Your task to perform on an android device: find which apps use the phone's location Image 0: 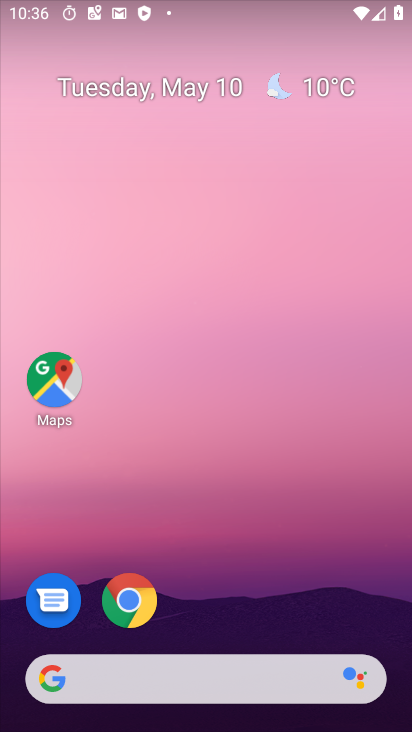
Step 0: drag from (314, 543) to (266, 21)
Your task to perform on an android device: find which apps use the phone's location Image 1: 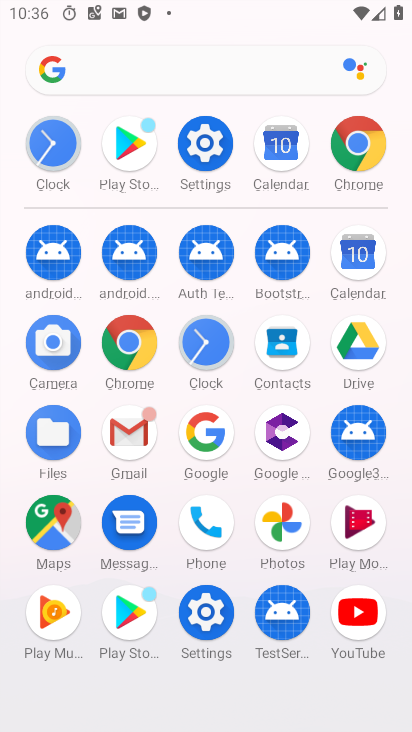
Step 1: drag from (14, 594) to (15, 166)
Your task to perform on an android device: find which apps use the phone's location Image 2: 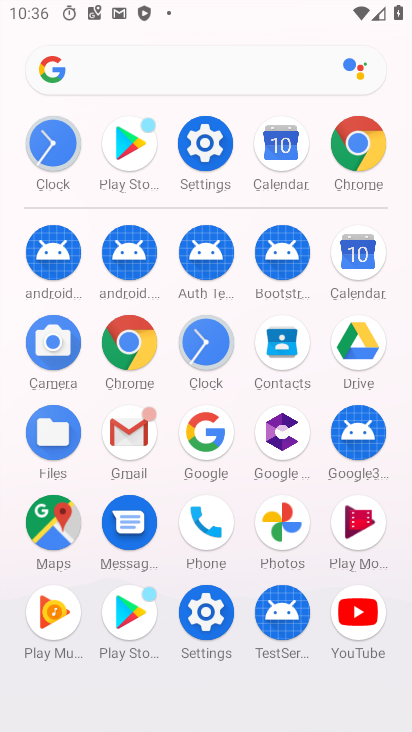
Step 2: click (202, 614)
Your task to perform on an android device: find which apps use the phone's location Image 3: 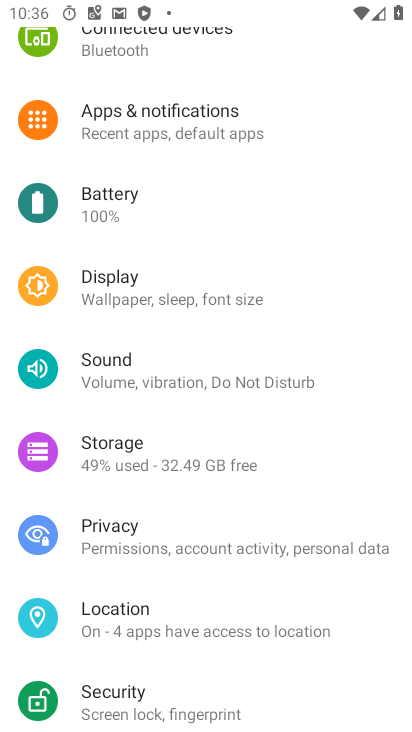
Step 3: drag from (333, 109) to (333, 528)
Your task to perform on an android device: find which apps use the phone's location Image 4: 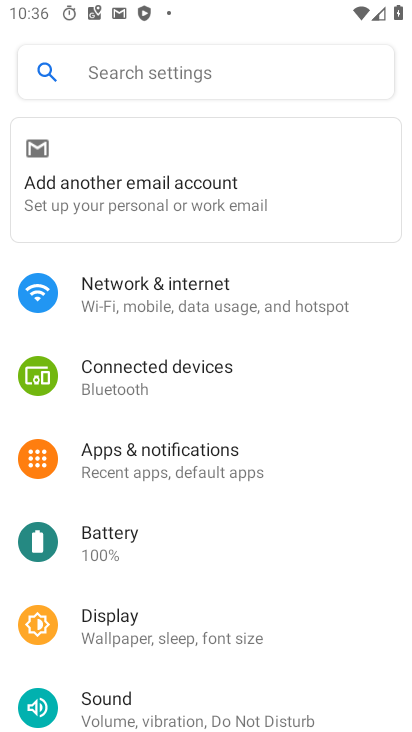
Step 4: drag from (299, 612) to (282, 149)
Your task to perform on an android device: find which apps use the phone's location Image 5: 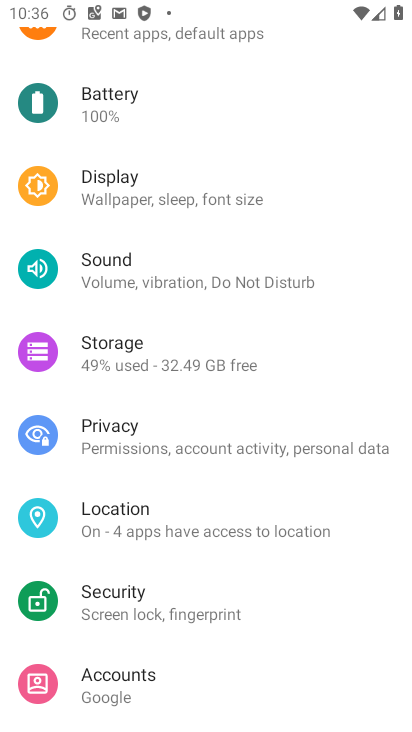
Step 5: drag from (305, 473) to (296, 124)
Your task to perform on an android device: find which apps use the phone's location Image 6: 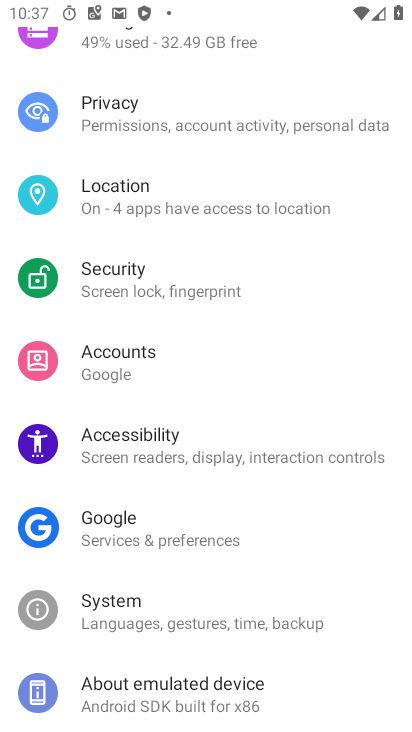
Step 6: click (208, 188)
Your task to perform on an android device: find which apps use the phone's location Image 7: 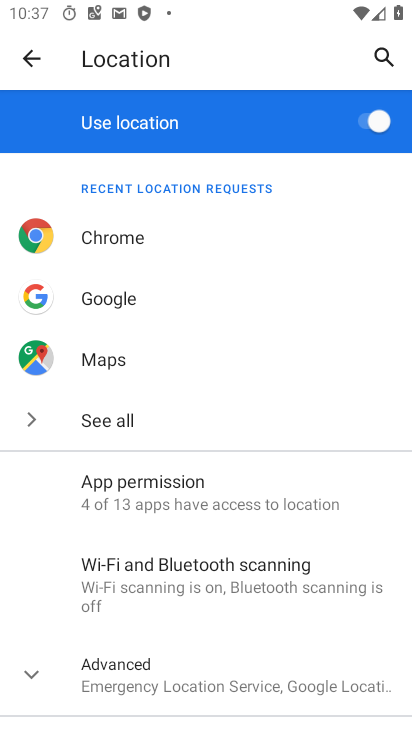
Step 7: drag from (247, 509) to (275, 235)
Your task to perform on an android device: find which apps use the phone's location Image 8: 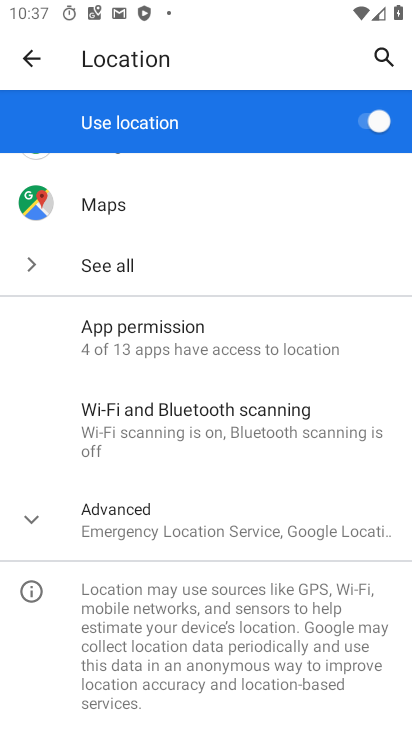
Step 8: click (67, 499)
Your task to perform on an android device: find which apps use the phone's location Image 9: 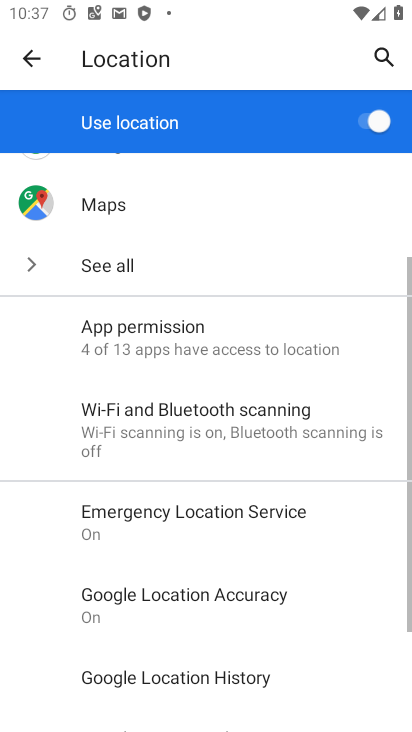
Step 9: drag from (284, 596) to (267, 291)
Your task to perform on an android device: find which apps use the phone's location Image 10: 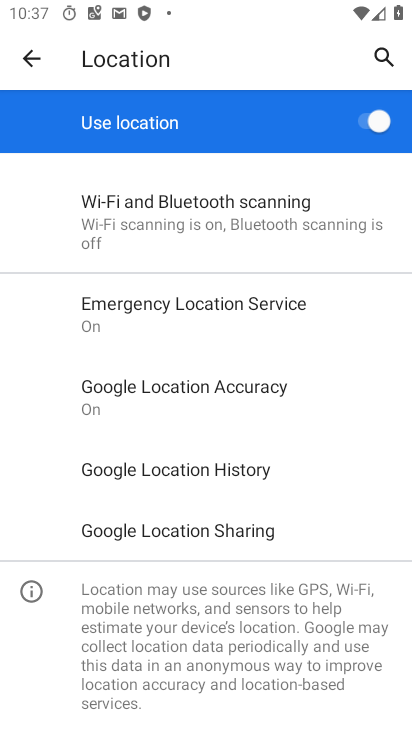
Step 10: drag from (272, 252) to (291, 601)
Your task to perform on an android device: find which apps use the phone's location Image 11: 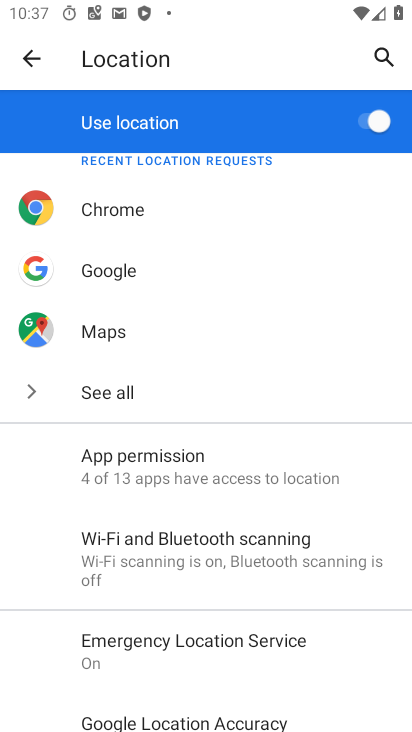
Step 11: click (190, 462)
Your task to perform on an android device: find which apps use the phone's location Image 12: 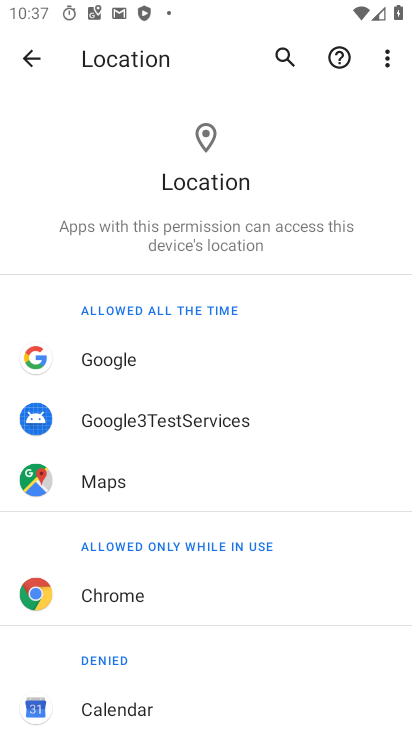
Step 12: task complete